Your task to perform on an android device: visit the assistant section in the google photos Image 0: 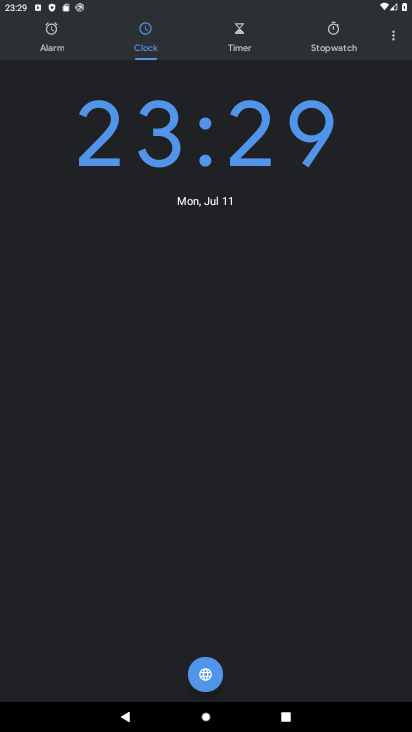
Step 0: press home button
Your task to perform on an android device: visit the assistant section in the google photos Image 1: 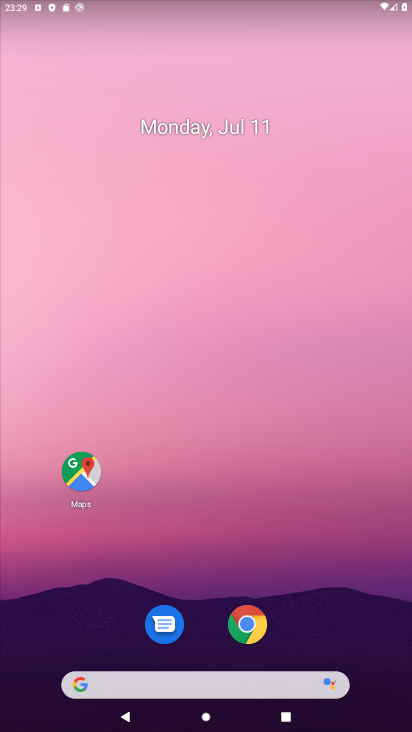
Step 1: drag from (205, 607) to (177, 26)
Your task to perform on an android device: visit the assistant section in the google photos Image 2: 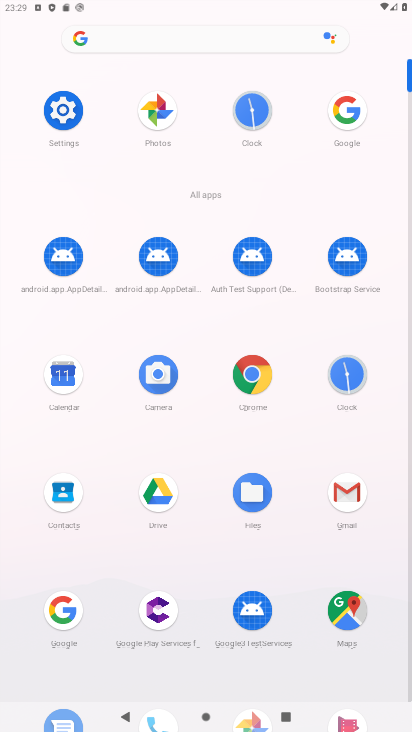
Step 2: click (152, 112)
Your task to perform on an android device: visit the assistant section in the google photos Image 3: 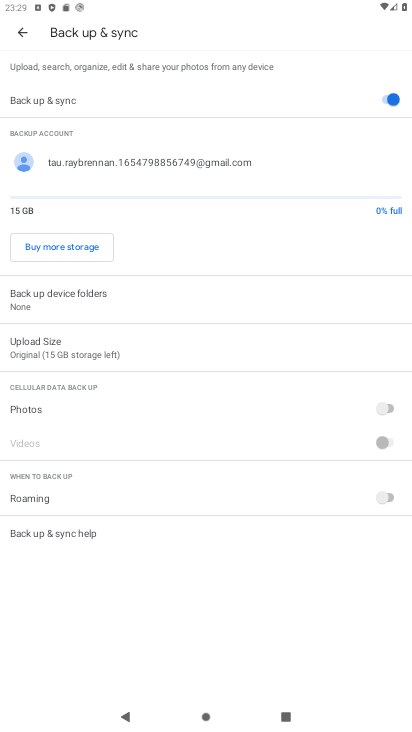
Step 3: click (19, 22)
Your task to perform on an android device: visit the assistant section in the google photos Image 4: 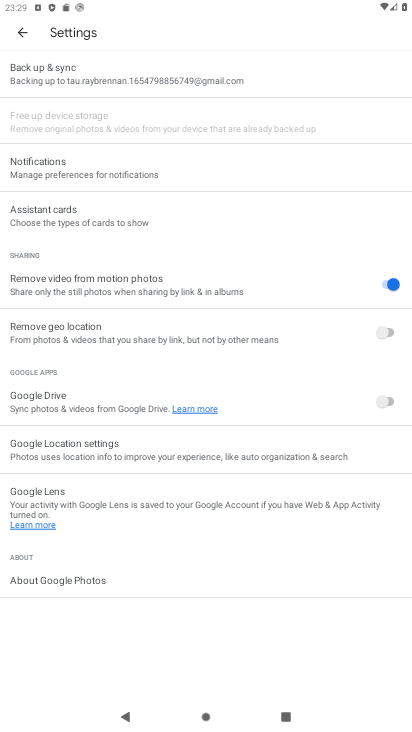
Step 4: click (21, 34)
Your task to perform on an android device: visit the assistant section in the google photos Image 5: 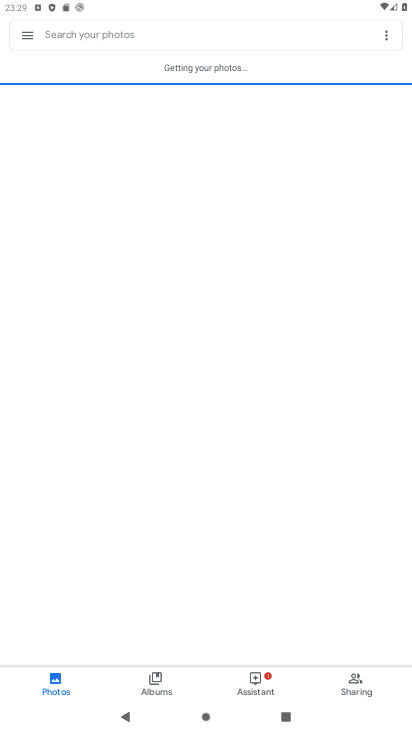
Step 5: click (248, 688)
Your task to perform on an android device: visit the assistant section in the google photos Image 6: 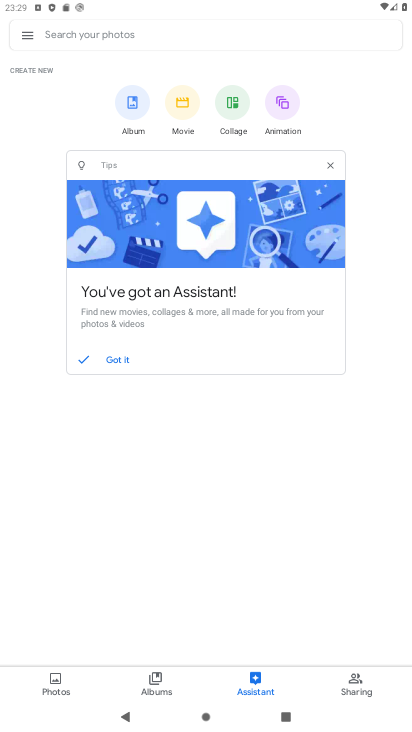
Step 6: task complete